Your task to perform on an android device: How much does a3 bedroom apartment rent for in Portland? Image 0: 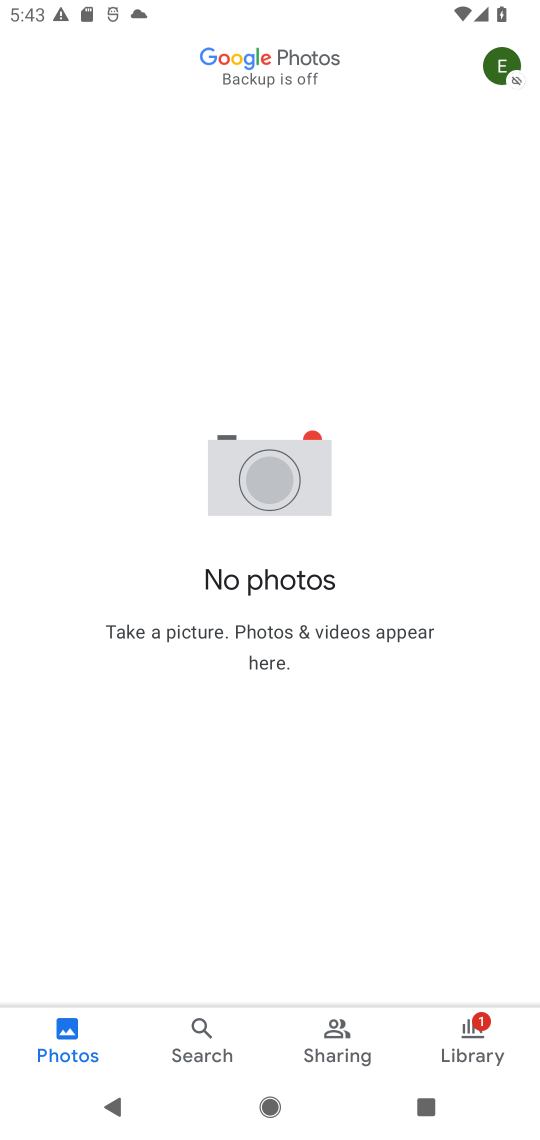
Step 0: press home button
Your task to perform on an android device: How much does a3 bedroom apartment rent for in Portland? Image 1: 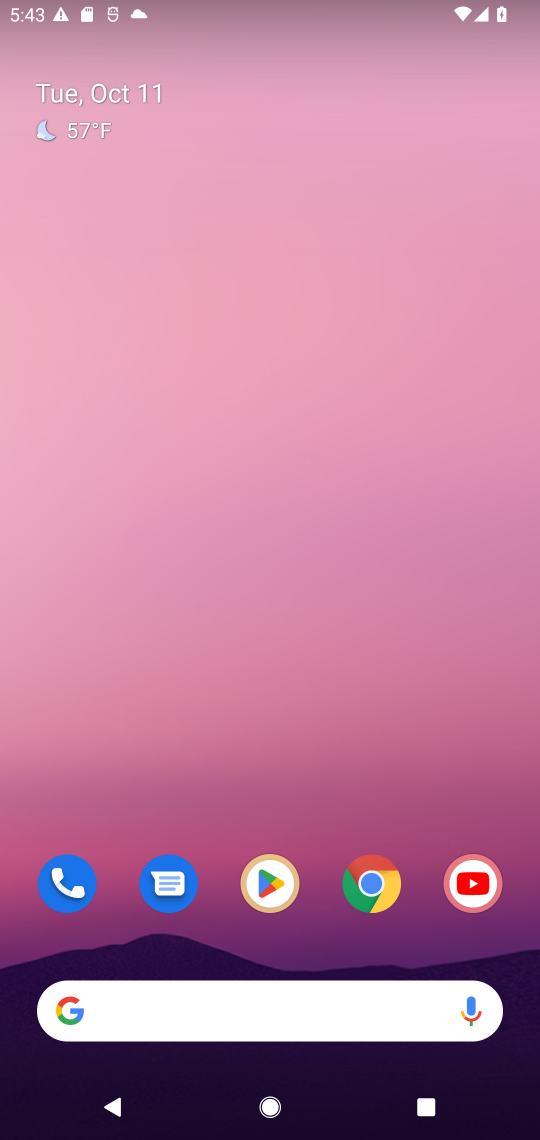
Step 1: drag from (301, 924) to (323, 62)
Your task to perform on an android device: How much does a3 bedroom apartment rent for in Portland? Image 2: 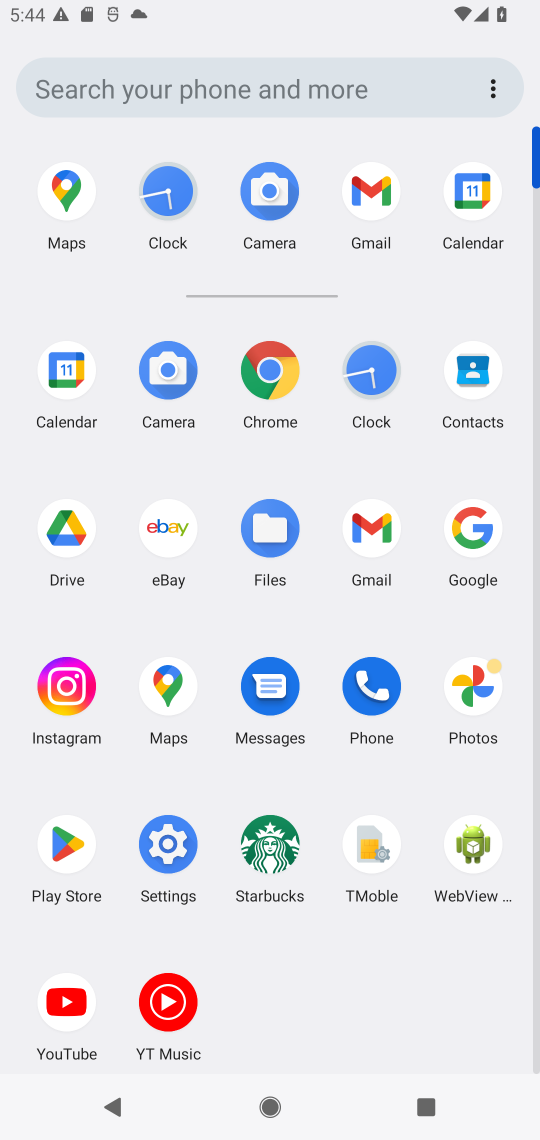
Step 2: click (270, 370)
Your task to perform on an android device: How much does a3 bedroom apartment rent for in Portland? Image 3: 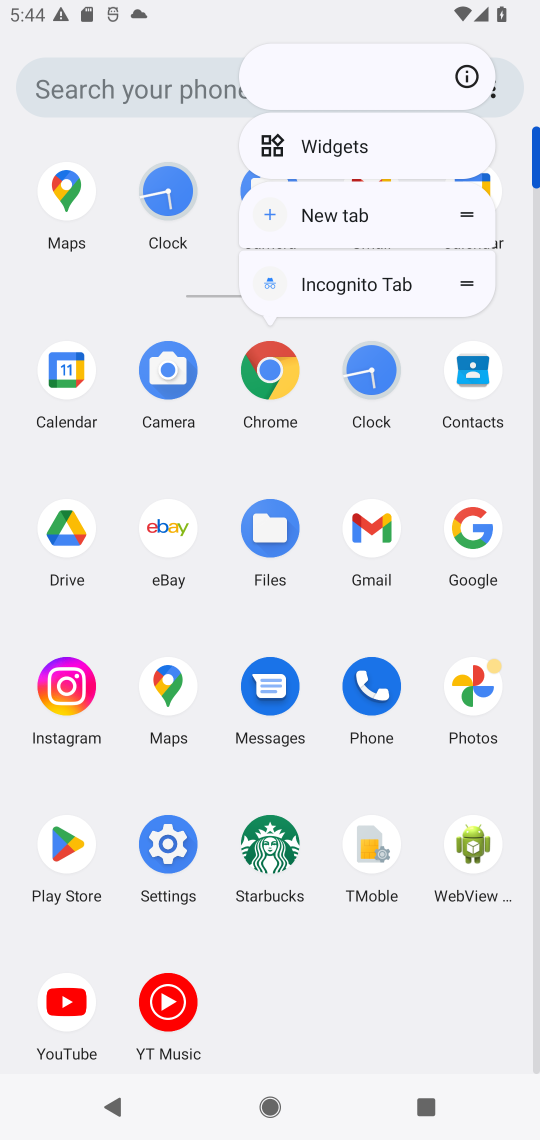
Step 3: click (264, 373)
Your task to perform on an android device: How much does a3 bedroom apartment rent for in Portland? Image 4: 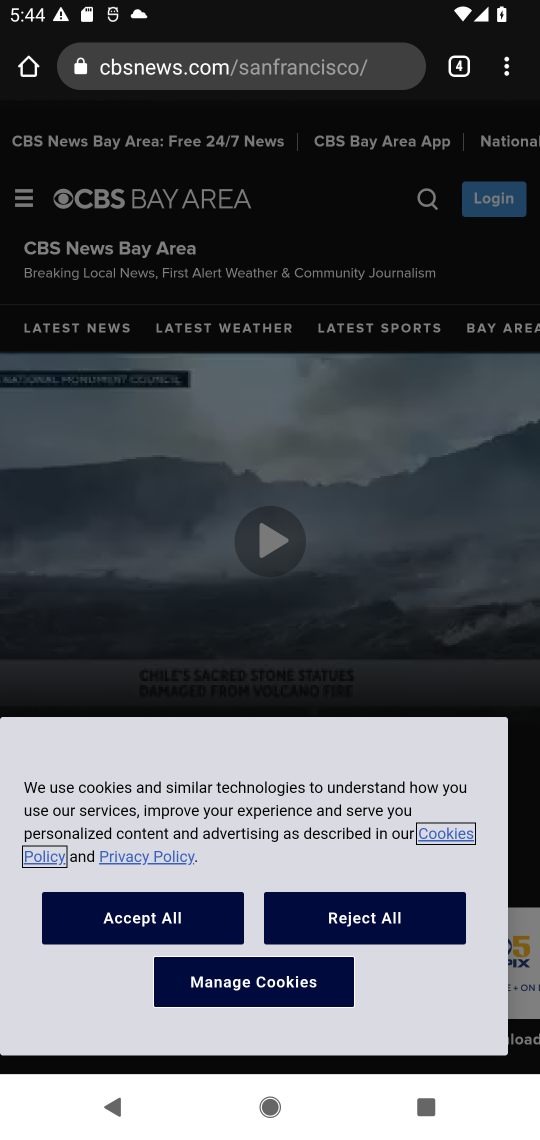
Step 4: click (315, 79)
Your task to perform on an android device: How much does a3 bedroom apartment rent for in Portland? Image 5: 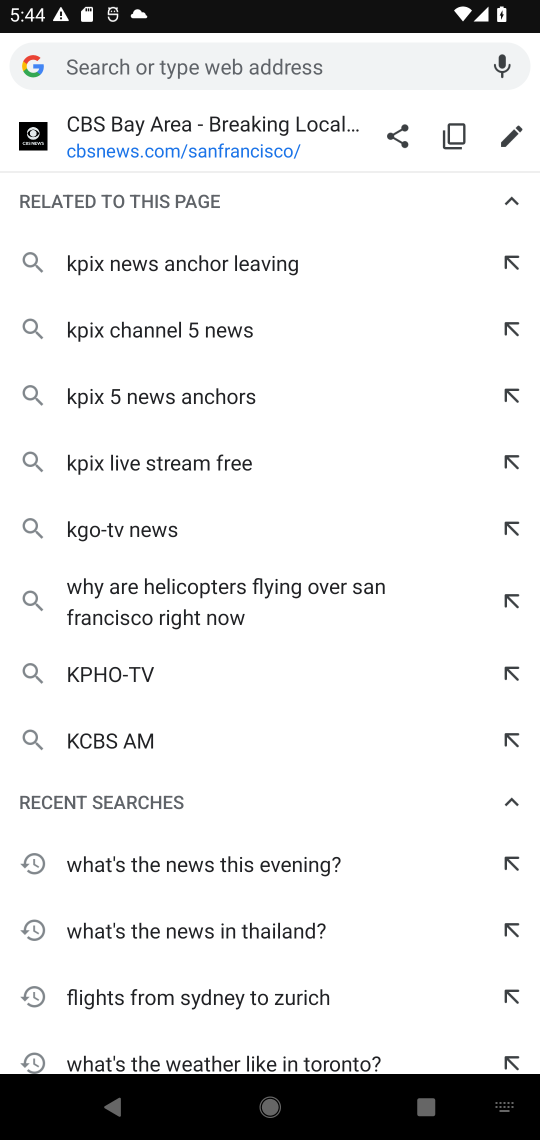
Step 5: type "How much does a3 bedroom apartment rent for in Portland?"
Your task to perform on an android device: How much does a3 bedroom apartment rent for in Portland? Image 6: 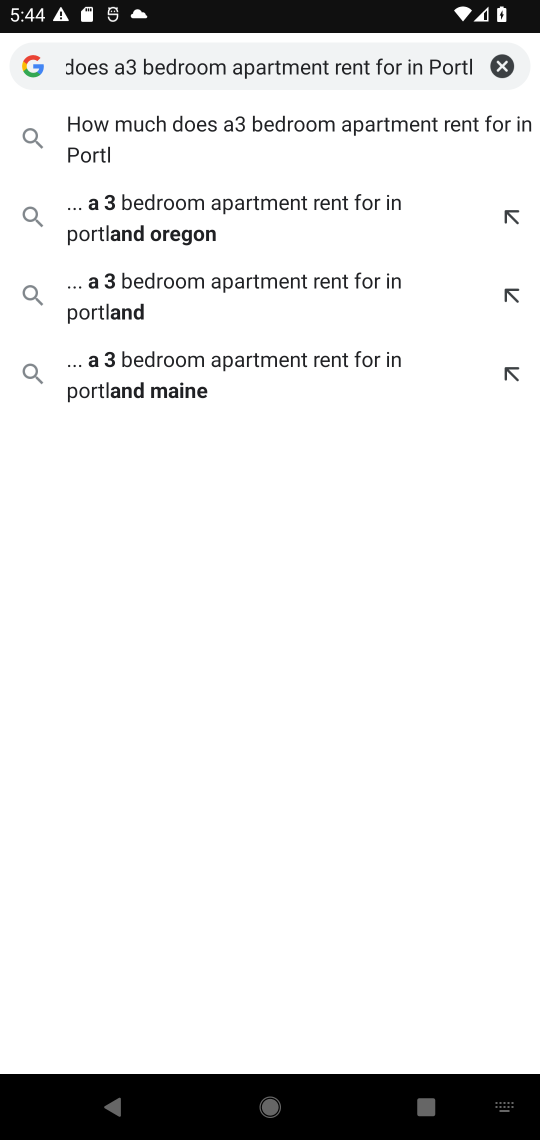
Step 6: type "and?"
Your task to perform on an android device: How much does a3 bedroom apartment rent for in Portland? Image 7: 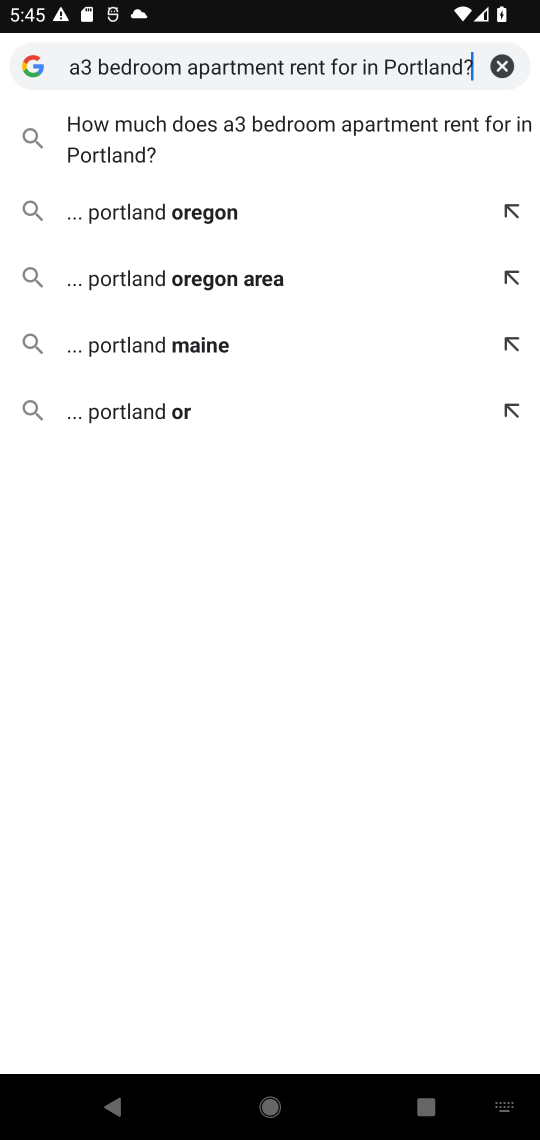
Step 7: press enter
Your task to perform on an android device: How much does a3 bedroom apartment rent for in Portland? Image 8: 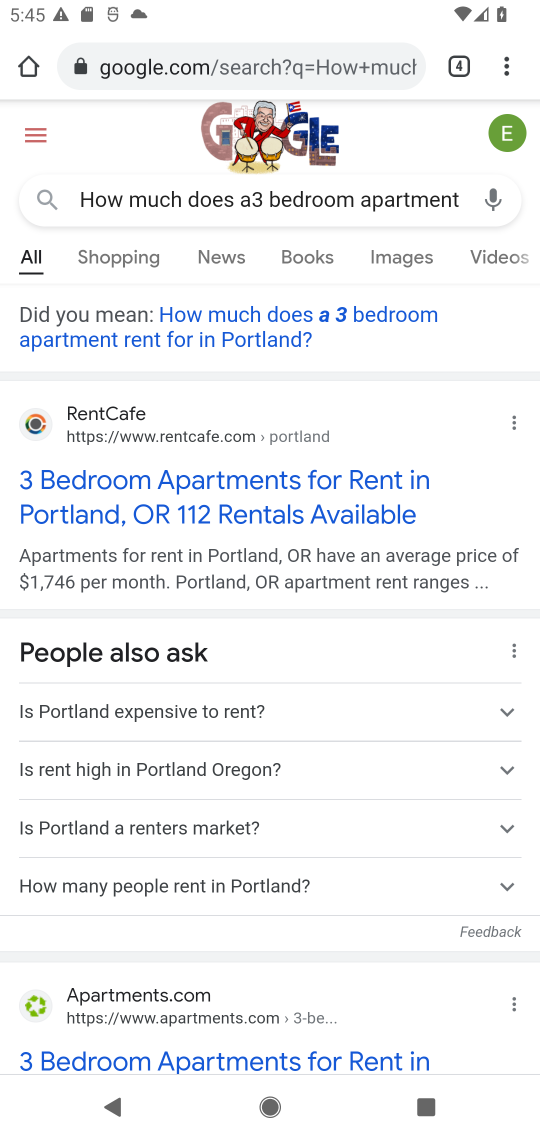
Step 8: click (279, 507)
Your task to perform on an android device: How much does a3 bedroom apartment rent for in Portland? Image 9: 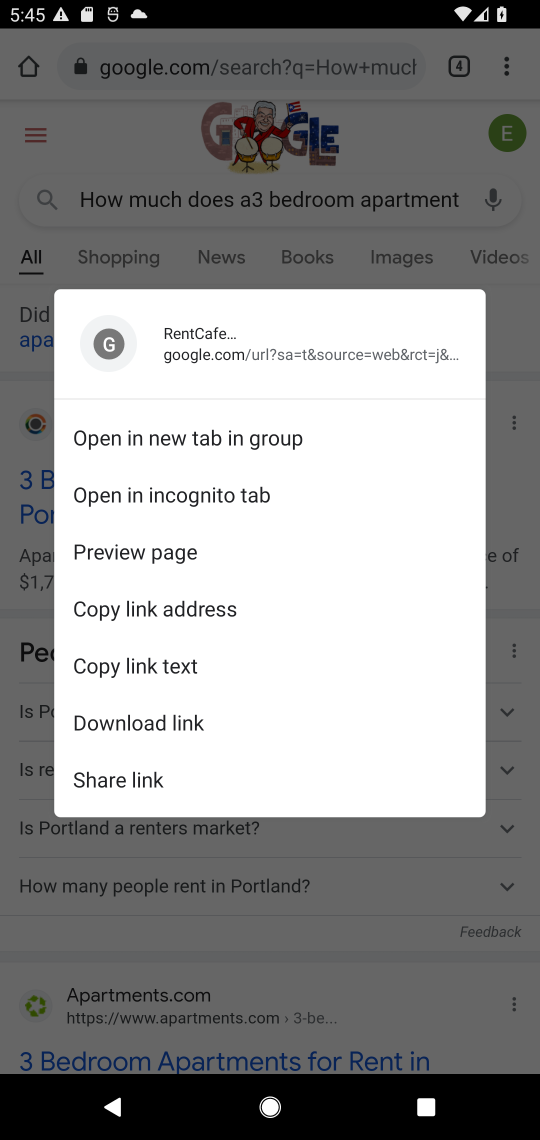
Step 9: click (436, 213)
Your task to perform on an android device: How much does a3 bedroom apartment rent for in Portland? Image 10: 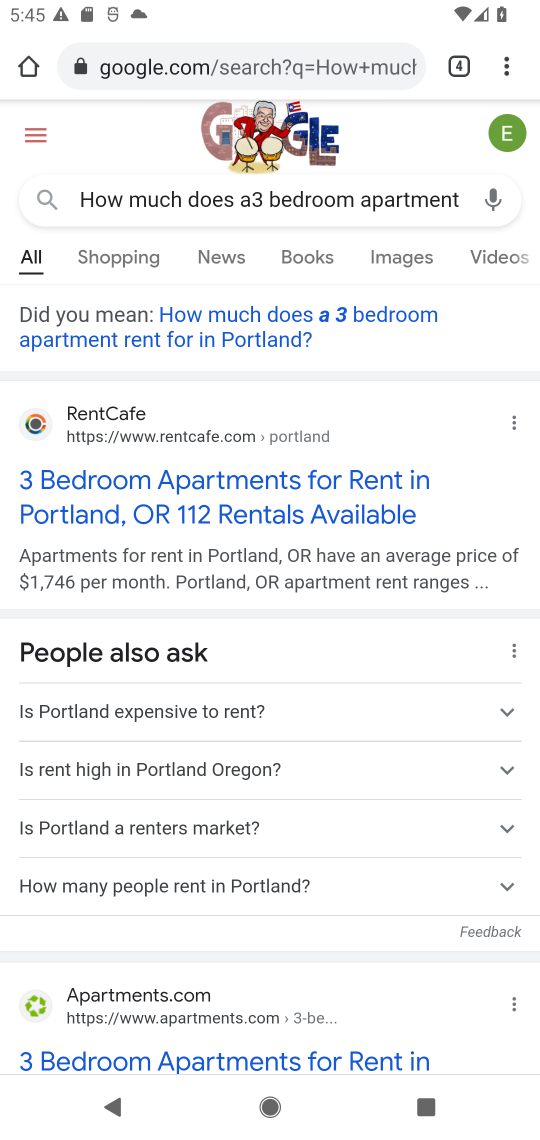
Step 10: task complete